Your task to perform on an android device: Go to display settings Image 0: 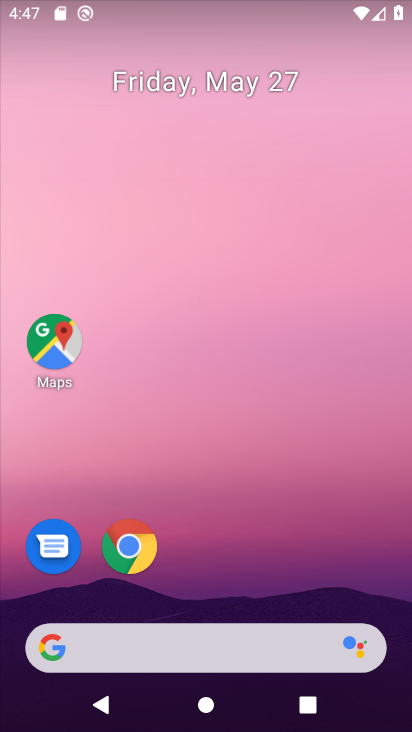
Step 0: drag from (260, 528) to (198, 39)
Your task to perform on an android device: Go to display settings Image 1: 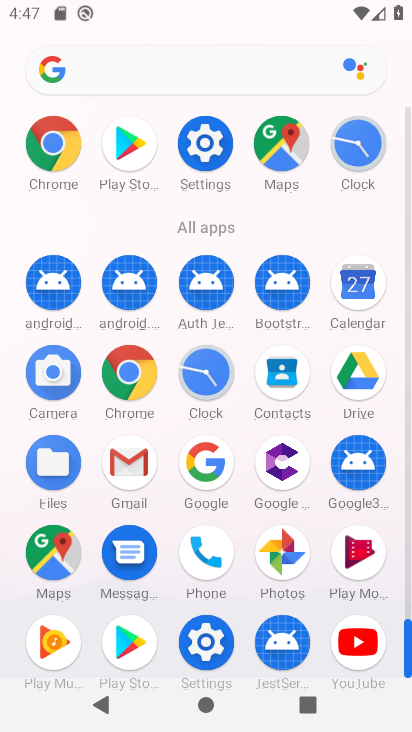
Step 1: drag from (0, 475) to (19, 207)
Your task to perform on an android device: Go to display settings Image 2: 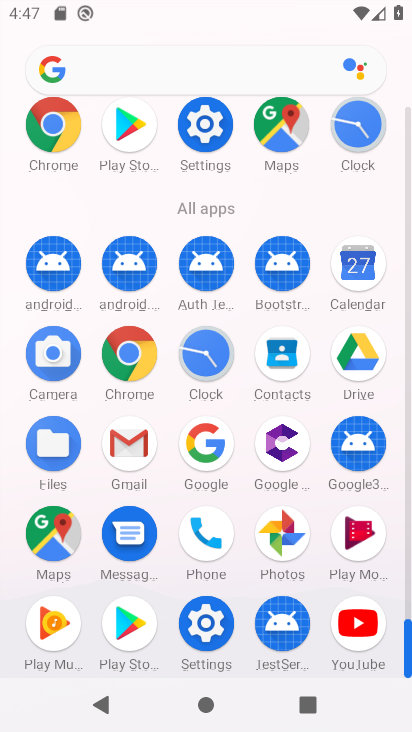
Step 2: click (202, 618)
Your task to perform on an android device: Go to display settings Image 3: 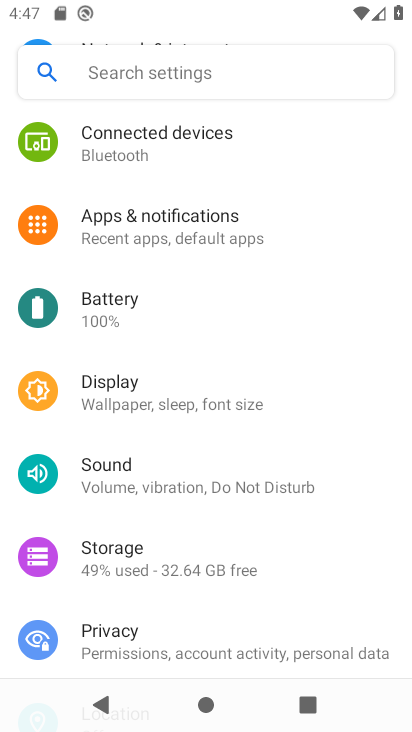
Step 3: click (139, 387)
Your task to perform on an android device: Go to display settings Image 4: 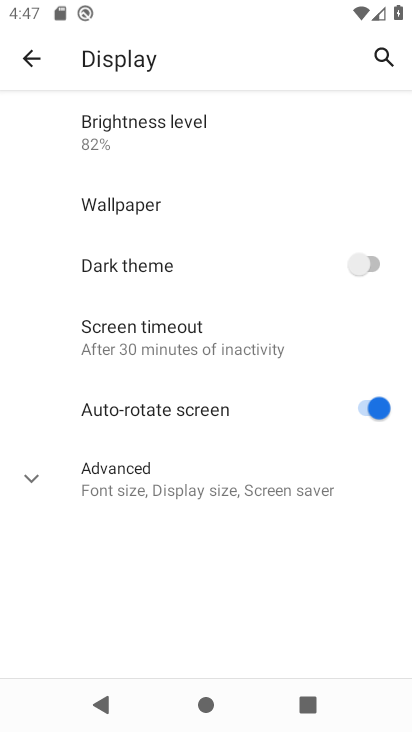
Step 4: click (57, 471)
Your task to perform on an android device: Go to display settings Image 5: 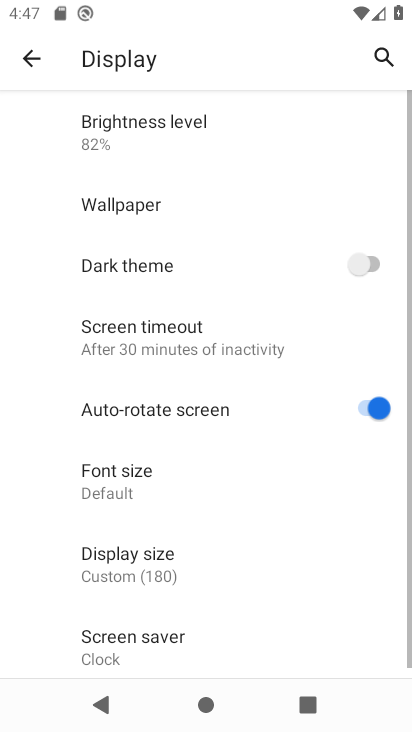
Step 5: task complete